Your task to perform on an android device: turn off notifications in google photos Image 0: 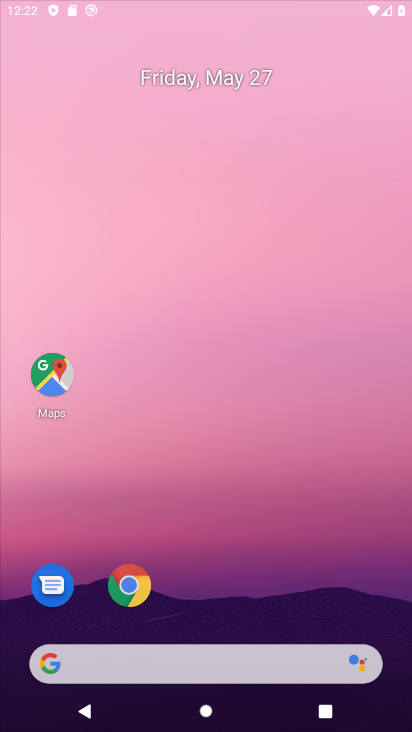
Step 0: press home button
Your task to perform on an android device: turn off notifications in google photos Image 1: 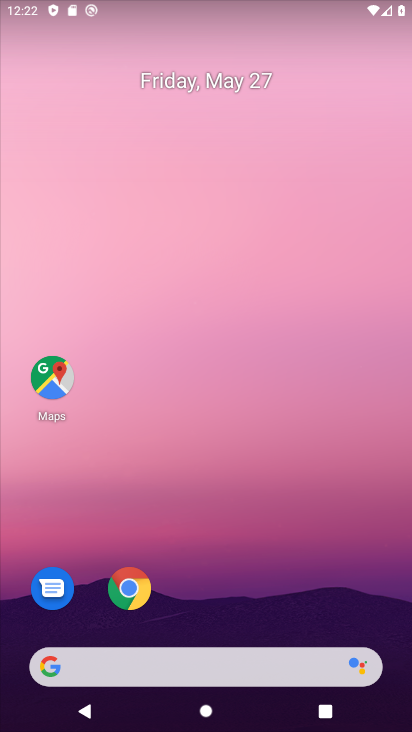
Step 1: drag from (203, 628) to (173, 81)
Your task to perform on an android device: turn off notifications in google photos Image 2: 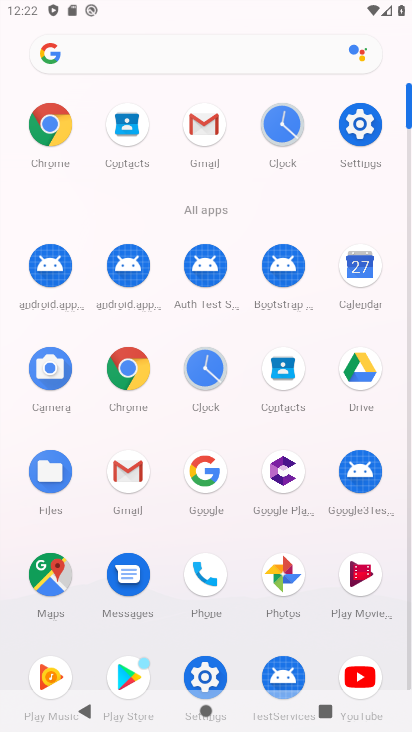
Step 2: click (279, 570)
Your task to perform on an android device: turn off notifications in google photos Image 3: 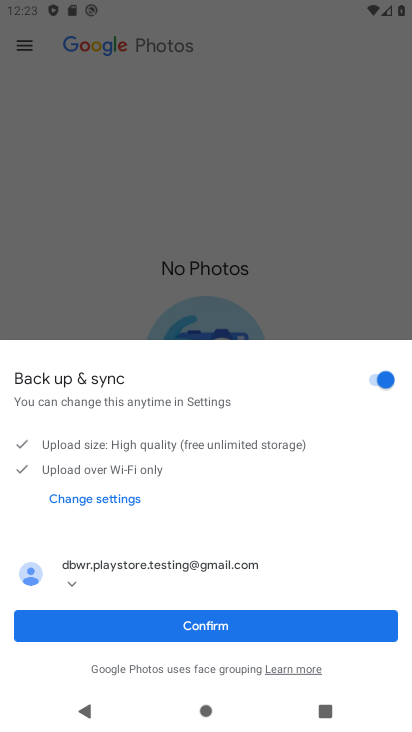
Step 3: click (204, 626)
Your task to perform on an android device: turn off notifications in google photos Image 4: 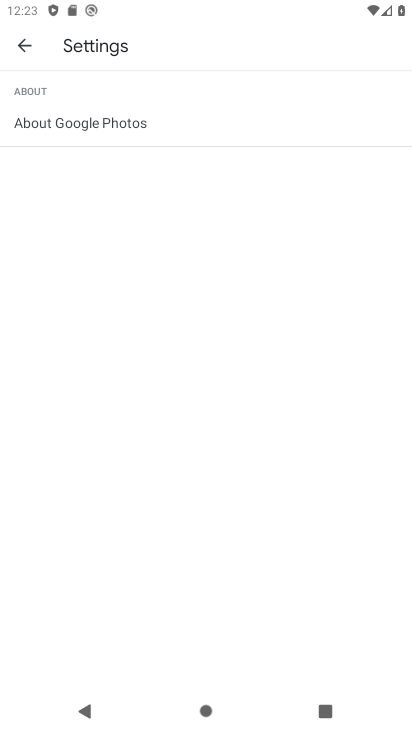
Step 4: click (23, 41)
Your task to perform on an android device: turn off notifications in google photos Image 5: 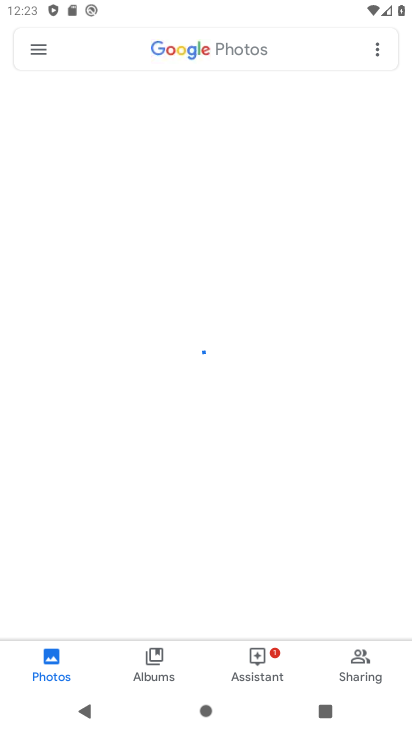
Step 5: click (37, 52)
Your task to perform on an android device: turn off notifications in google photos Image 6: 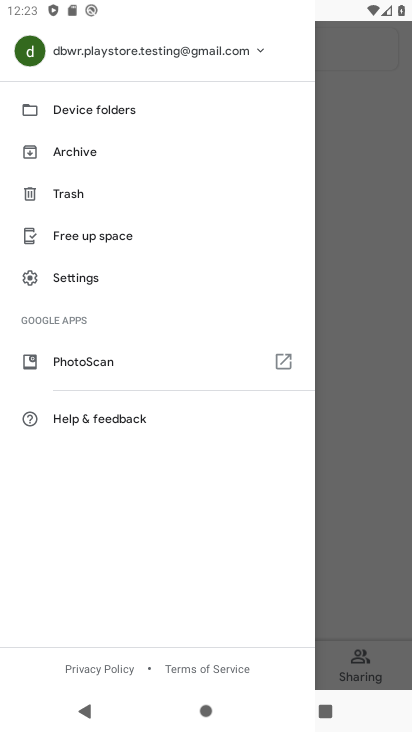
Step 6: click (110, 272)
Your task to perform on an android device: turn off notifications in google photos Image 7: 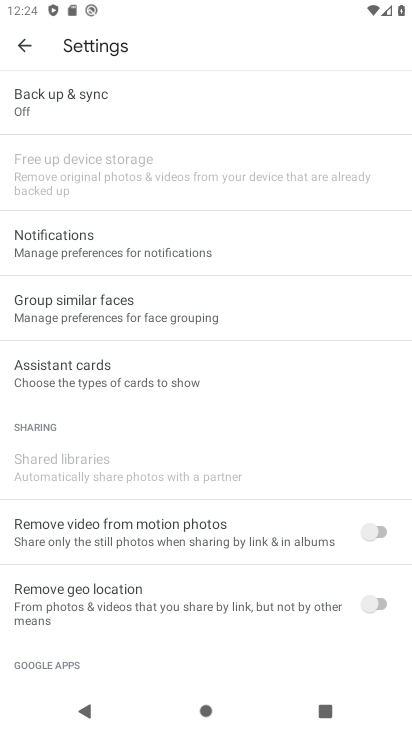
Step 7: click (61, 229)
Your task to perform on an android device: turn off notifications in google photos Image 8: 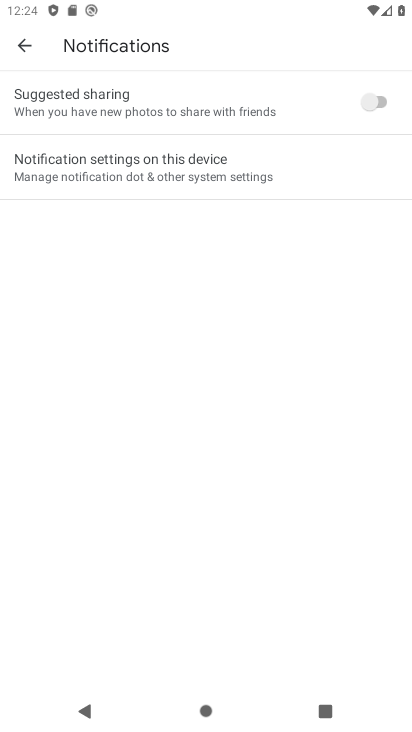
Step 8: click (283, 169)
Your task to perform on an android device: turn off notifications in google photos Image 9: 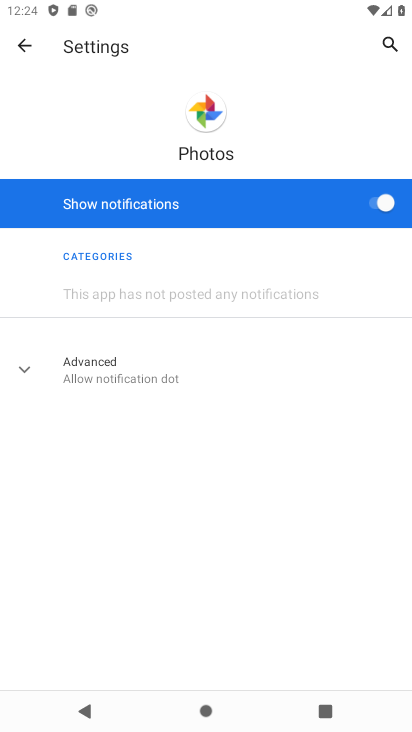
Step 9: click (383, 191)
Your task to perform on an android device: turn off notifications in google photos Image 10: 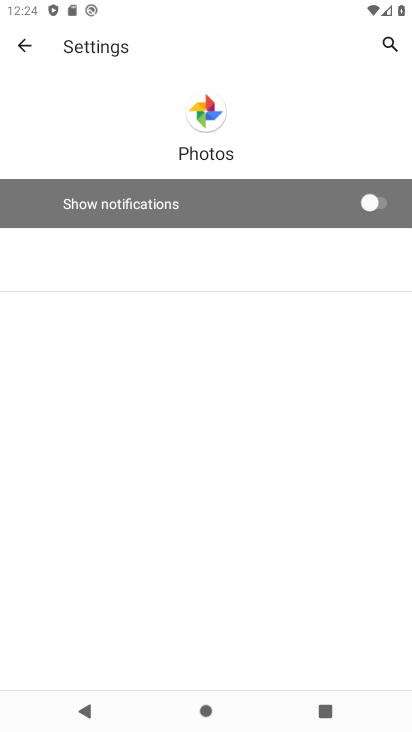
Step 10: task complete